Your task to perform on an android device: turn on improve location accuracy Image 0: 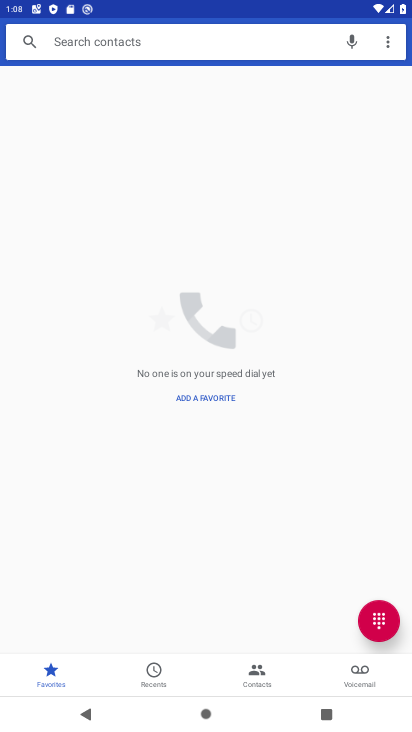
Step 0: press home button
Your task to perform on an android device: turn on improve location accuracy Image 1: 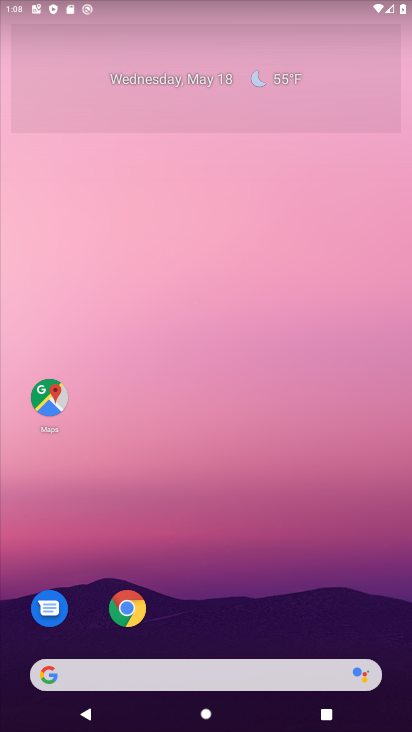
Step 1: drag from (258, 556) to (289, 130)
Your task to perform on an android device: turn on improve location accuracy Image 2: 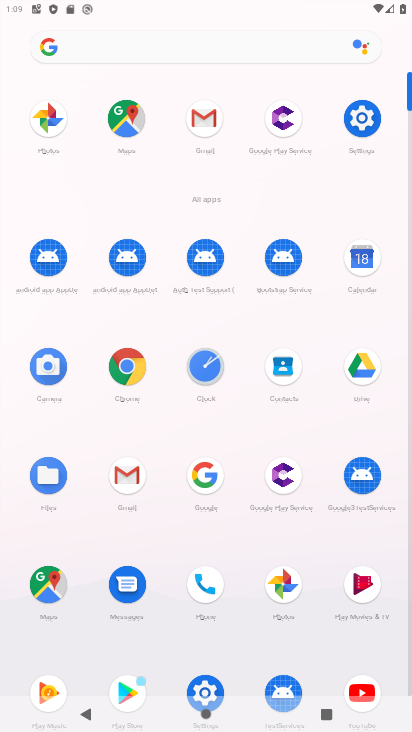
Step 2: click (360, 121)
Your task to perform on an android device: turn on improve location accuracy Image 3: 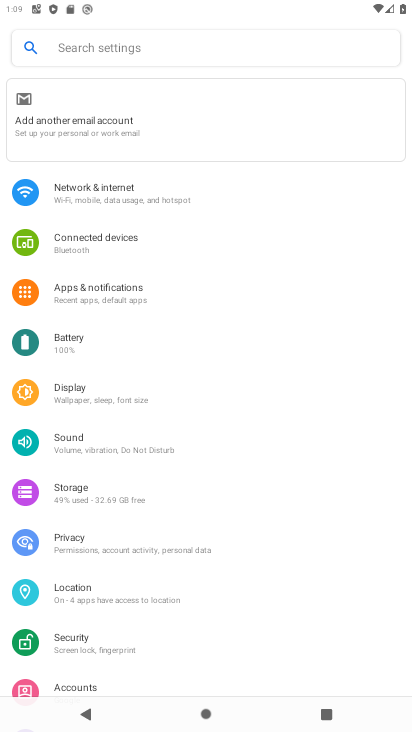
Step 3: drag from (130, 564) to (194, 366)
Your task to perform on an android device: turn on improve location accuracy Image 4: 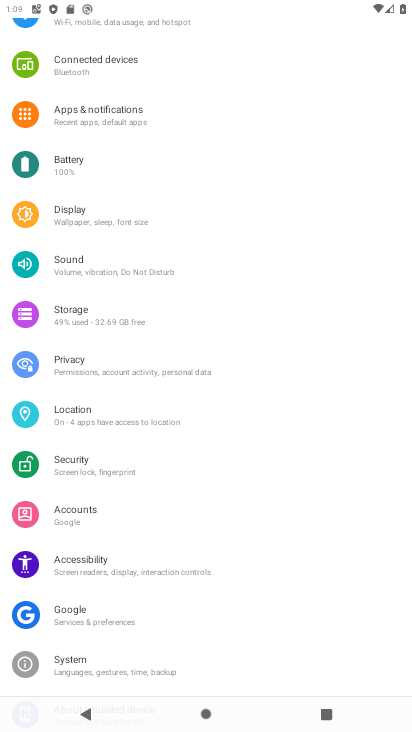
Step 4: click (83, 416)
Your task to perform on an android device: turn on improve location accuracy Image 5: 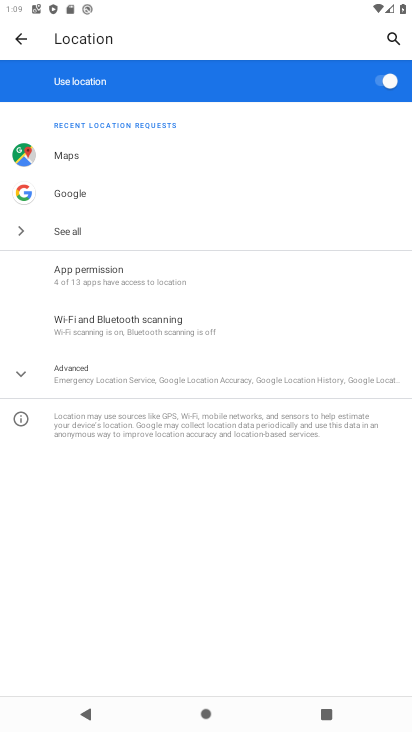
Step 5: click (85, 372)
Your task to perform on an android device: turn on improve location accuracy Image 6: 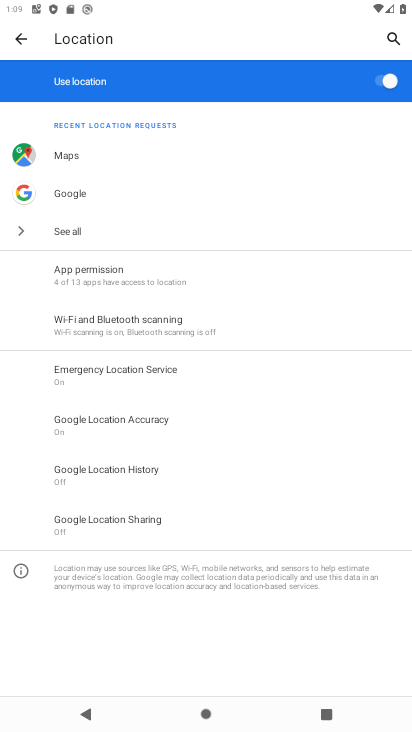
Step 6: click (114, 414)
Your task to perform on an android device: turn on improve location accuracy Image 7: 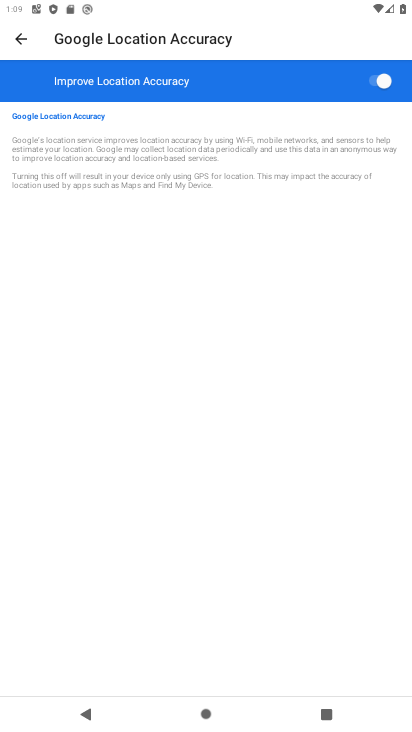
Step 7: task complete